Your task to perform on an android device: When is my next meeting? Image 0: 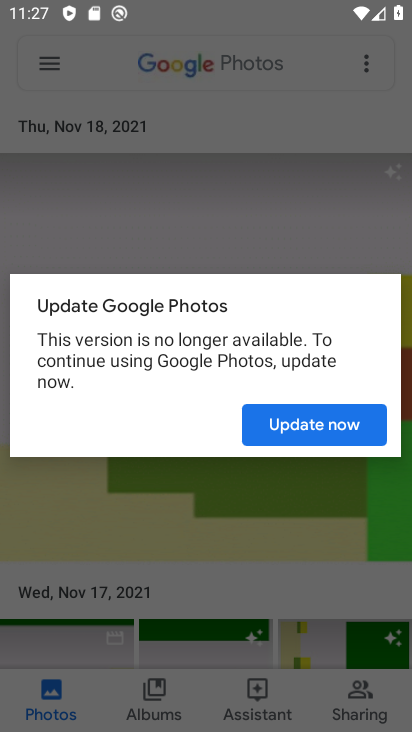
Step 0: press home button
Your task to perform on an android device: When is my next meeting? Image 1: 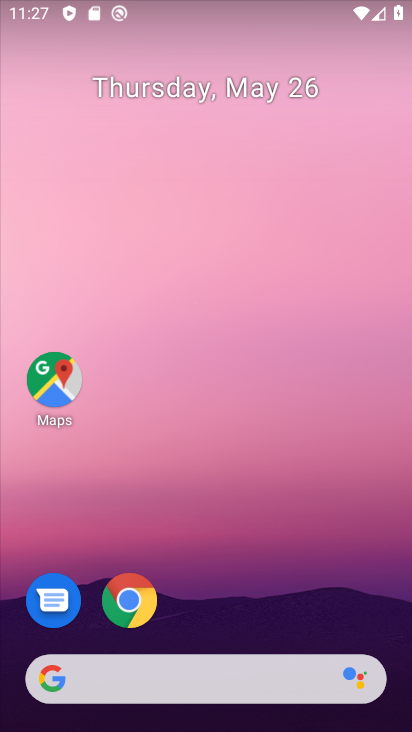
Step 1: click (200, 93)
Your task to perform on an android device: When is my next meeting? Image 2: 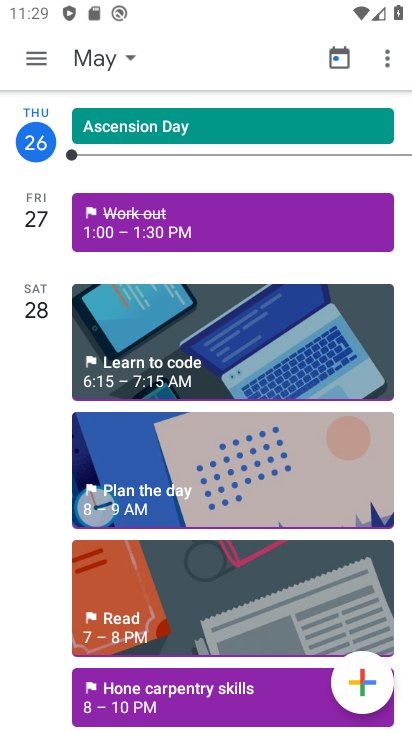
Step 2: task complete